Your task to perform on an android device: Open Chrome and go to settings Image 0: 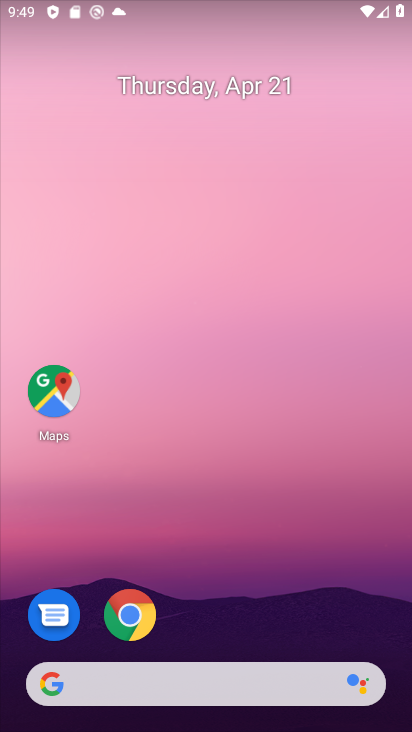
Step 0: click (132, 618)
Your task to perform on an android device: Open Chrome and go to settings Image 1: 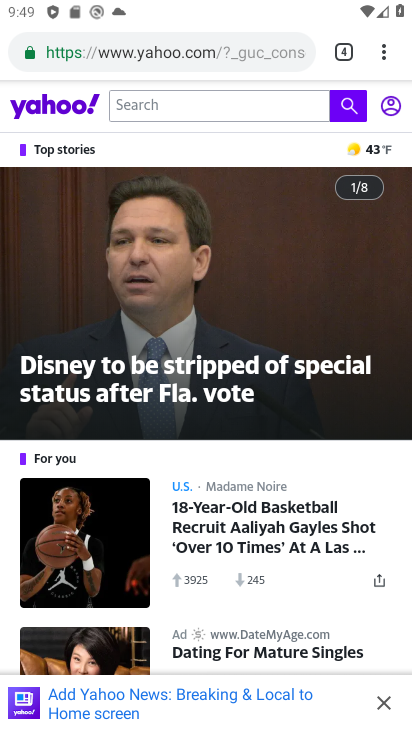
Step 1: task complete